Your task to perform on an android device: Go to display settings Image 0: 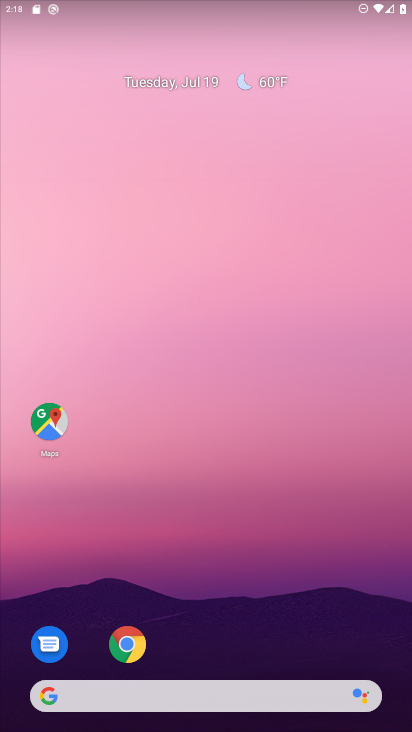
Step 0: drag from (366, 537) to (303, 86)
Your task to perform on an android device: Go to display settings Image 1: 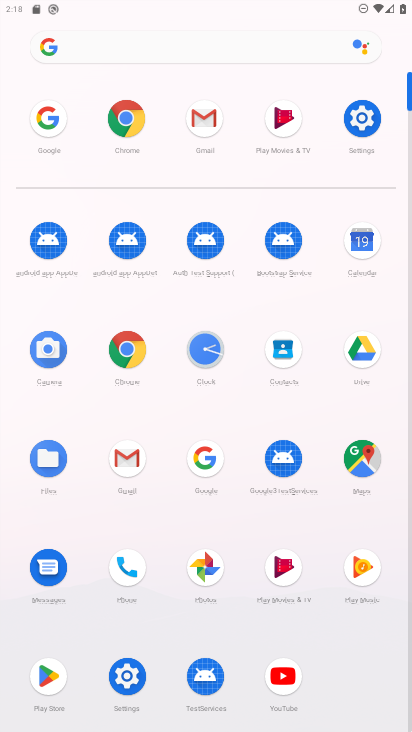
Step 1: click (132, 673)
Your task to perform on an android device: Go to display settings Image 2: 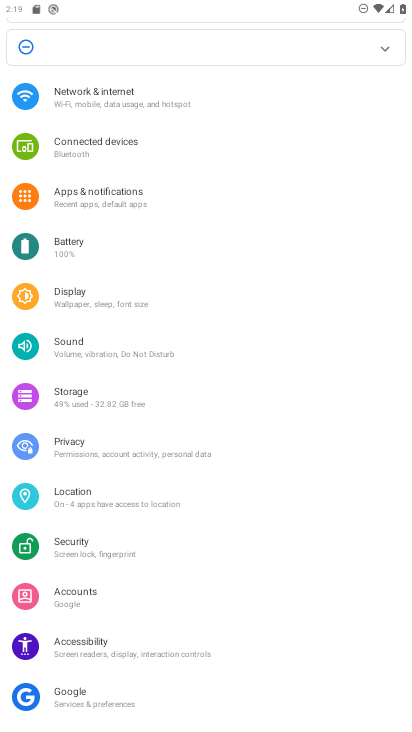
Step 2: click (83, 285)
Your task to perform on an android device: Go to display settings Image 3: 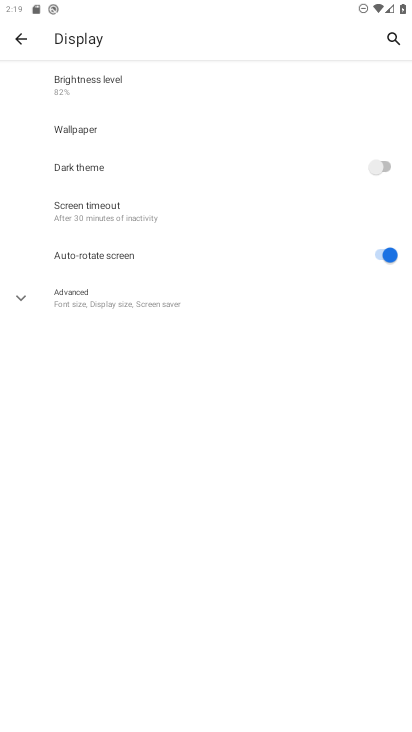
Step 3: click (34, 298)
Your task to perform on an android device: Go to display settings Image 4: 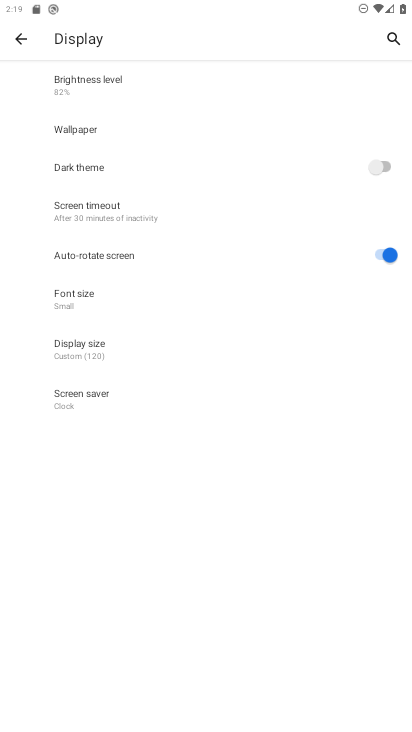
Step 4: task complete